Your task to perform on an android device: Do I have any events this weekend? Image 0: 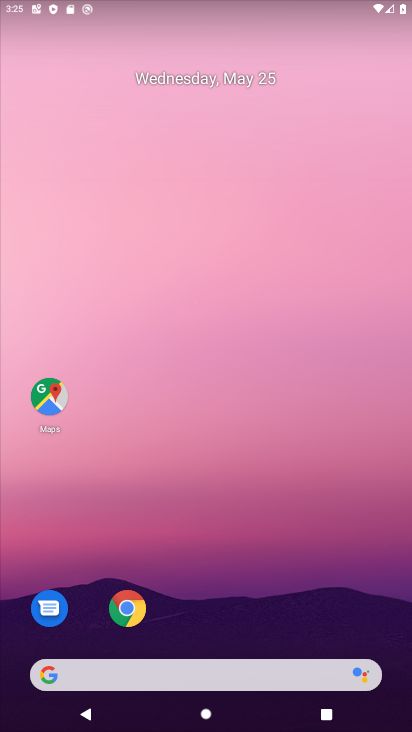
Step 0: click (231, 83)
Your task to perform on an android device: Do I have any events this weekend? Image 1: 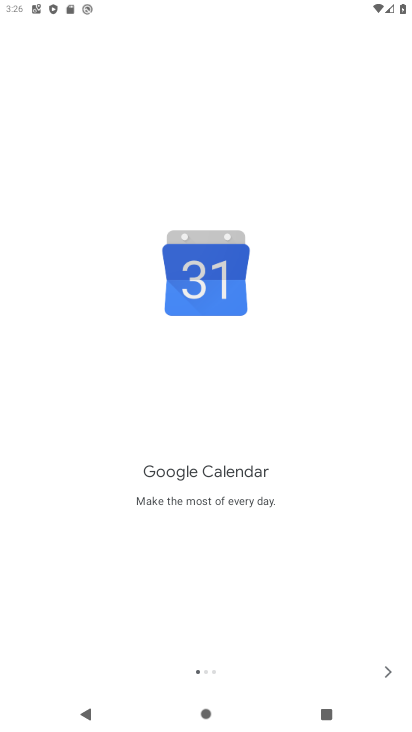
Step 1: click (383, 674)
Your task to perform on an android device: Do I have any events this weekend? Image 2: 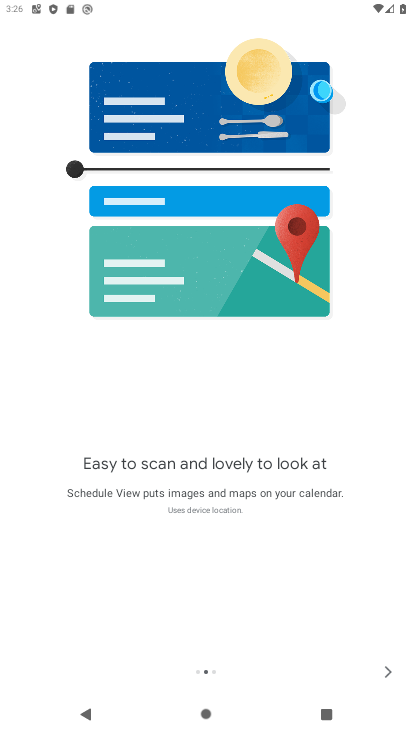
Step 2: click (391, 672)
Your task to perform on an android device: Do I have any events this weekend? Image 3: 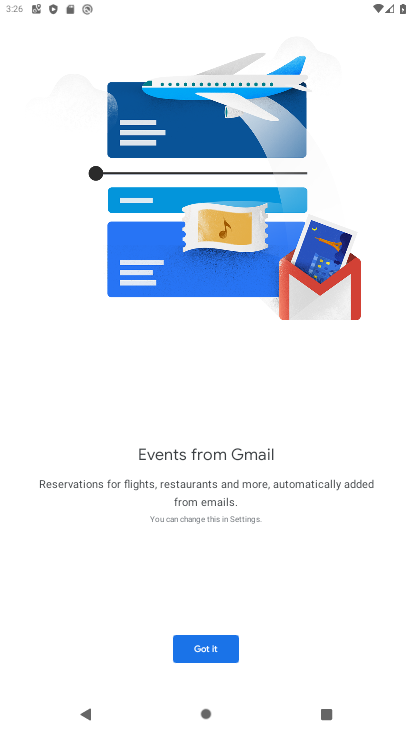
Step 3: click (228, 641)
Your task to perform on an android device: Do I have any events this weekend? Image 4: 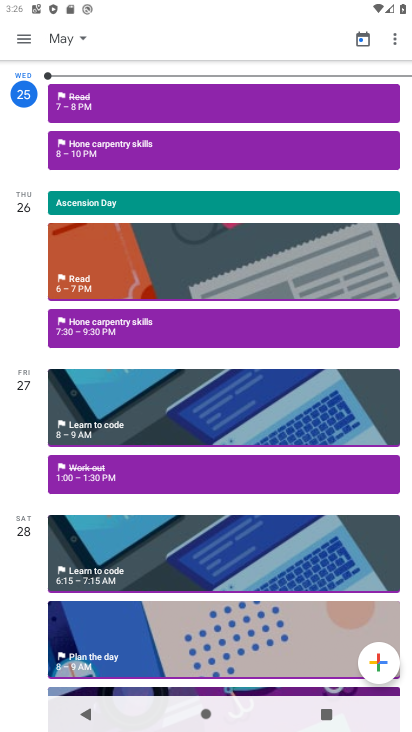
Step 4: click (85, 37)
Your task to perform on an android device: Do I have any events this weekend? Image 5: 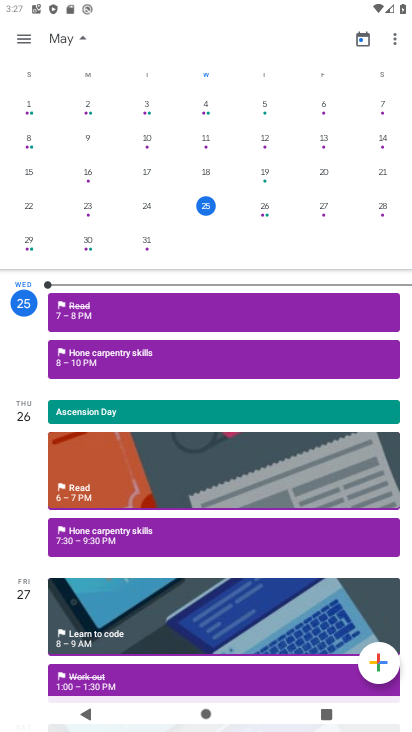
Step 5: click (383, 210)
Your task to perform on an android device: Do I have any events this weekend? Image 6: 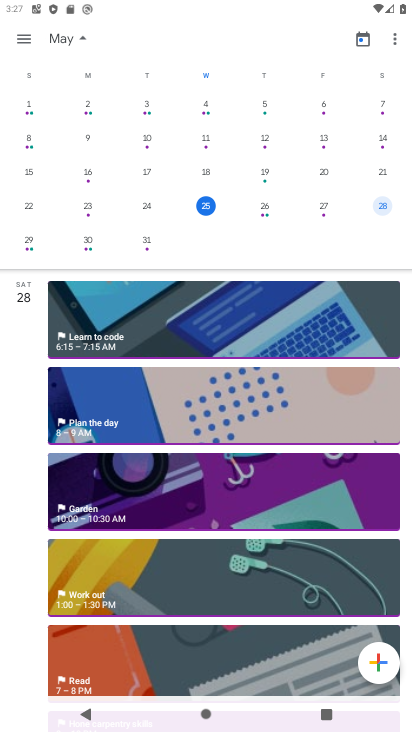
Step 6: task complete